Your task to perform on an android device: When is my next appointment? Image 0: 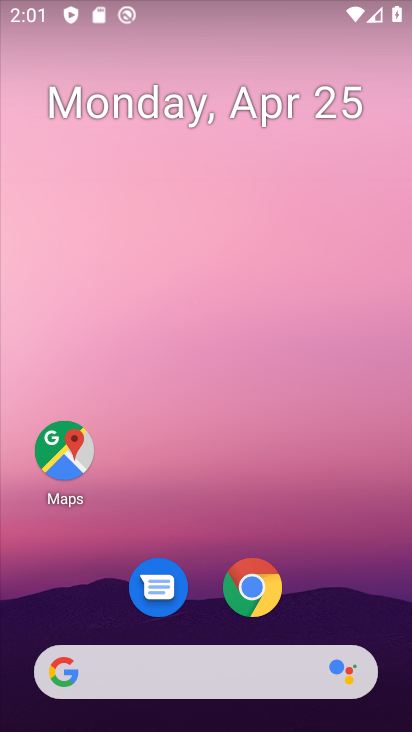
Step 0: drag from (334, 507) to (342, 54)
Your task to perform on an android device: When is my next appointment? Image 1: 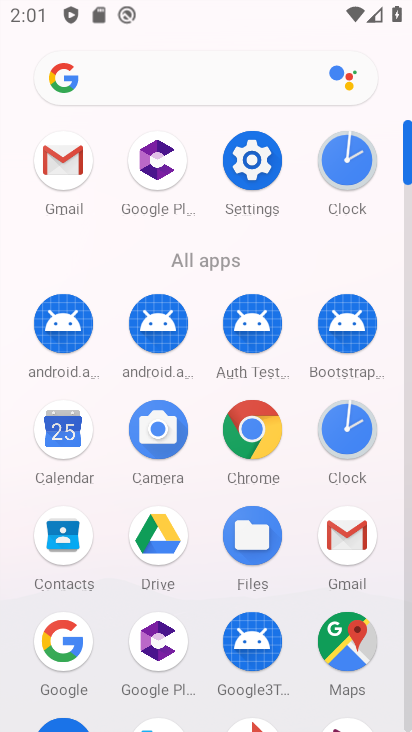
Step 1: drag from (317, 565) to (335, 247)
Your task to perform on an android device: When is my next appointment? Image 2: 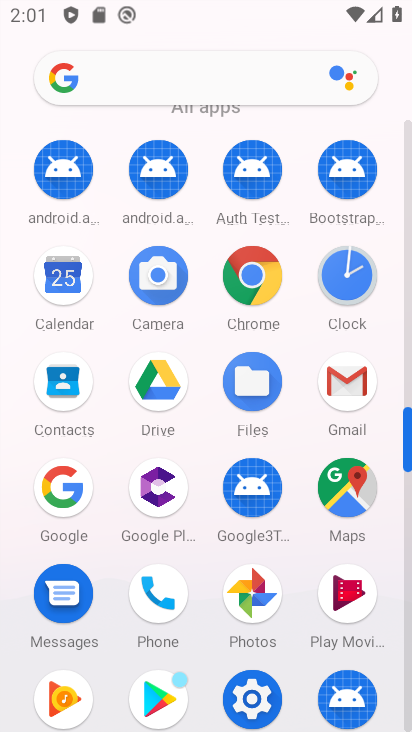
Step 2: click (61, 292)
Your task to perform on an android device: When is my next appointment? Image 3: 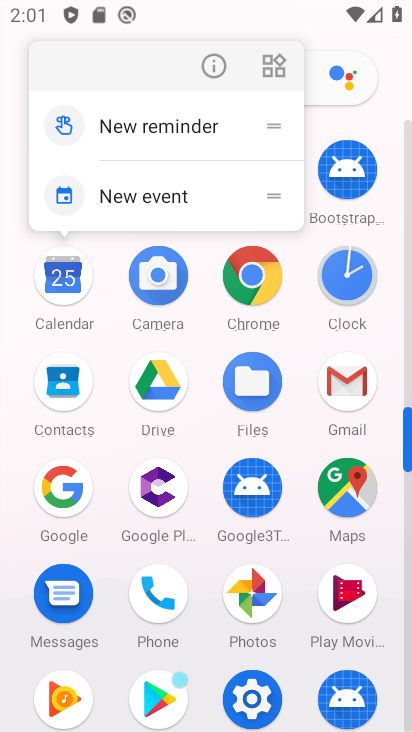
Step 3: click (62, 270)
Your task to perform on an android device: When is my next appointment? Image 4: 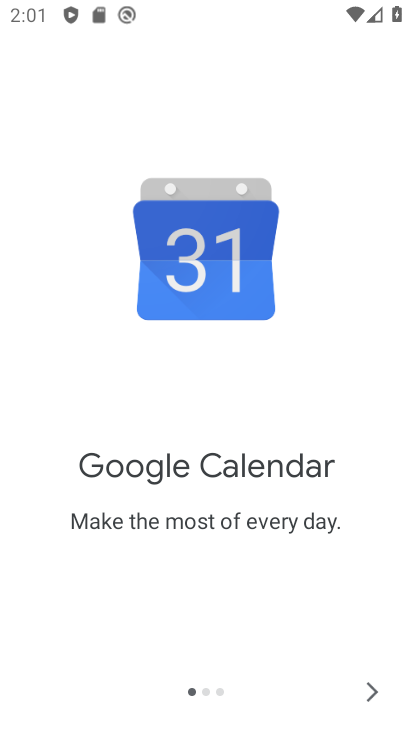
Step 4: click (369, 689)
Your task to perform on an android device: When is my next appointment? Image 5: 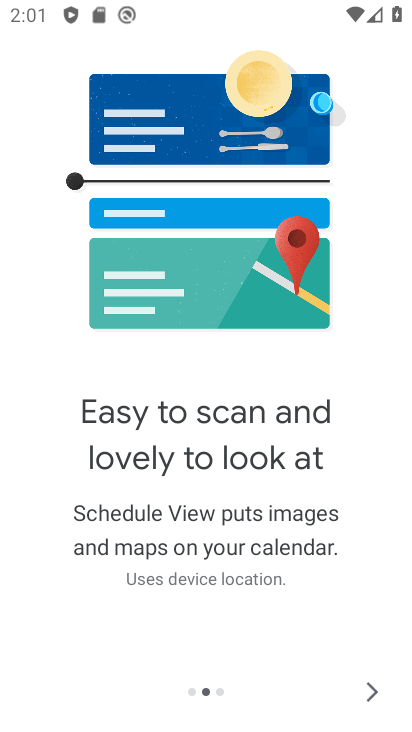
Step 5: click (369, 689)
Your task to perform on an android device: When is my next appointment? Image 6: 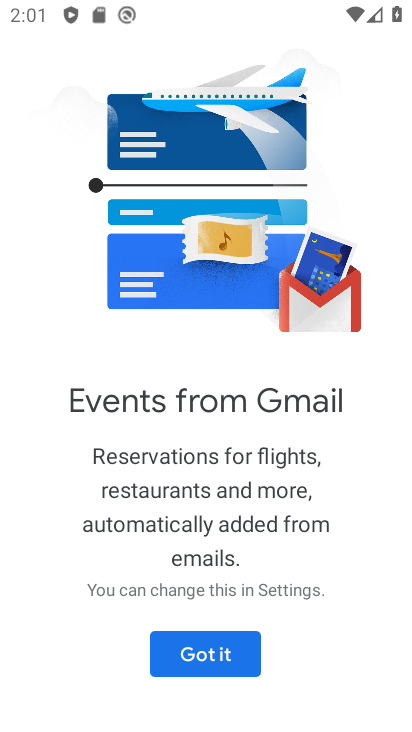
Step 6: click (192, 662)
Your task to perform on an android device: When is my next appointment? Image 7: 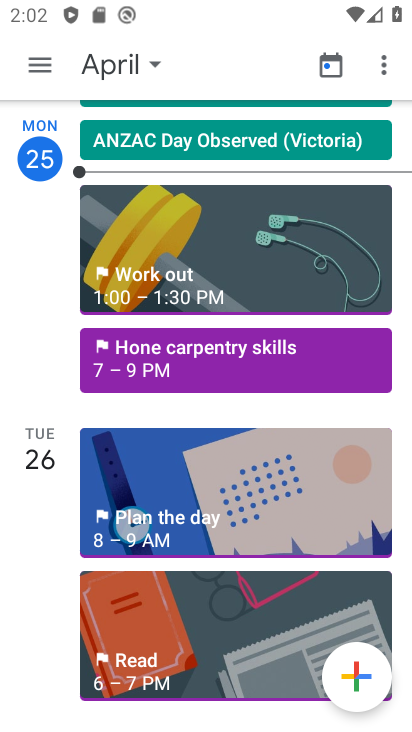
Step 7: task complete